Your task to perform on an android device: Open settings on Google Maps Image 0: 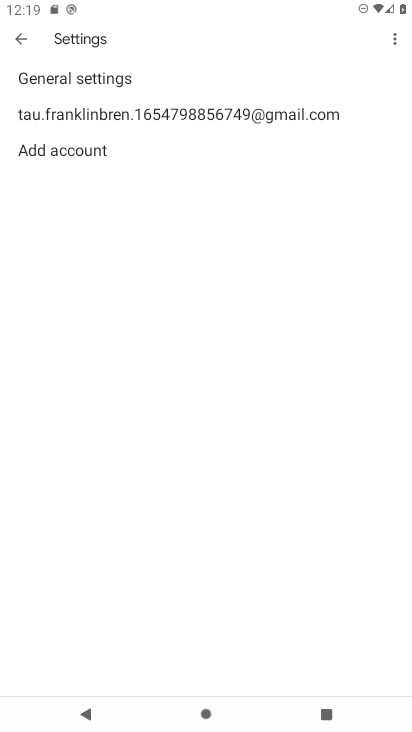
Step 0: press home button
Your task to perform on an android device: Open settings on Google Maps Image 1: 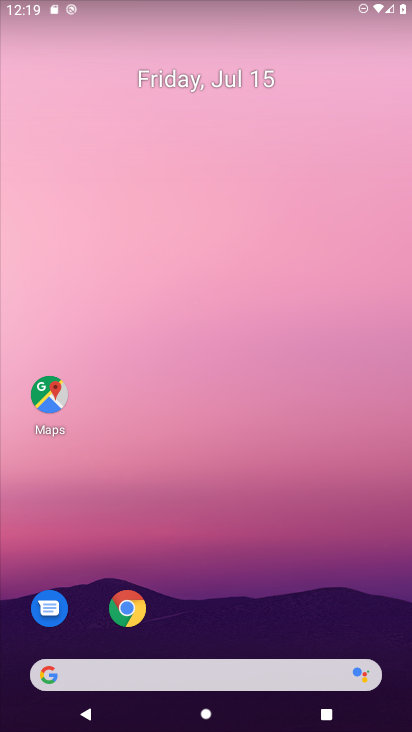
Step 1: drag from (224, 671) to (265, 29)
Your task to perform on an android device: Open settings on Google Maps Image 2: 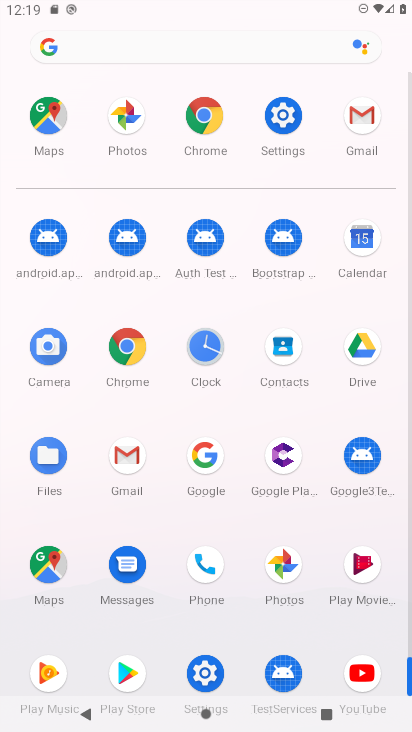
Step 2: click (272, 107)
Your task to perform on an android device: Open settings on Google Maps Image 3: 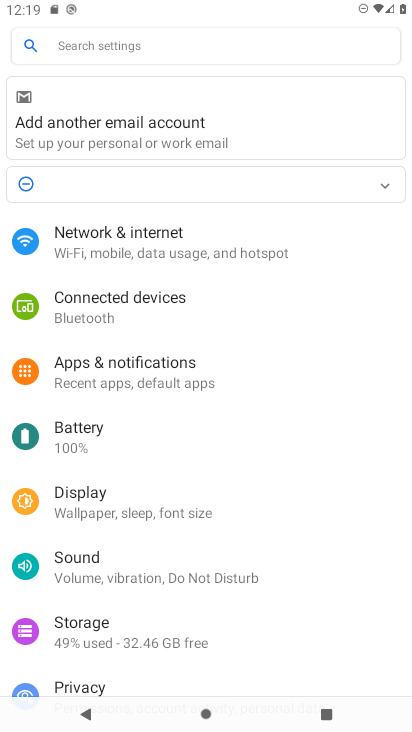
Step 3: press home button
Your task to perform on an android device: Open settings on Google Maps Image 4: 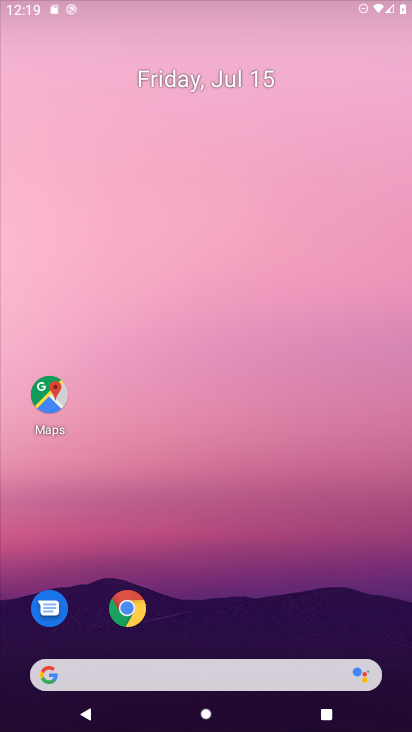
Step 4: drag from (269, 679) to (306, 11)
Your task to perform on an android device: Open settings on Google Maps Image 5: 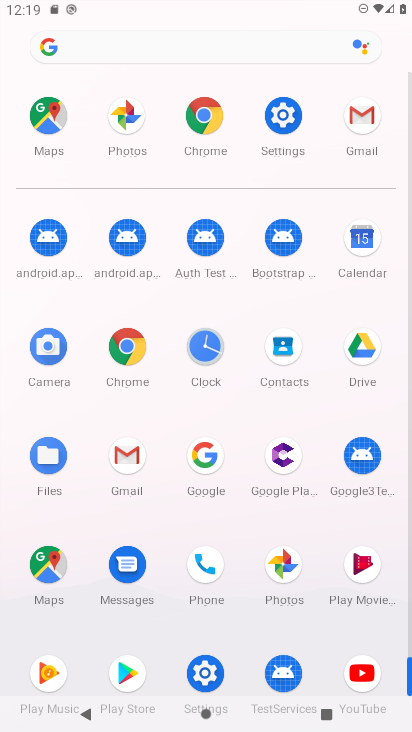
Step 5: click (34, 572)
Your task to perform on an android device: Open settings on Google Maps Image 6: 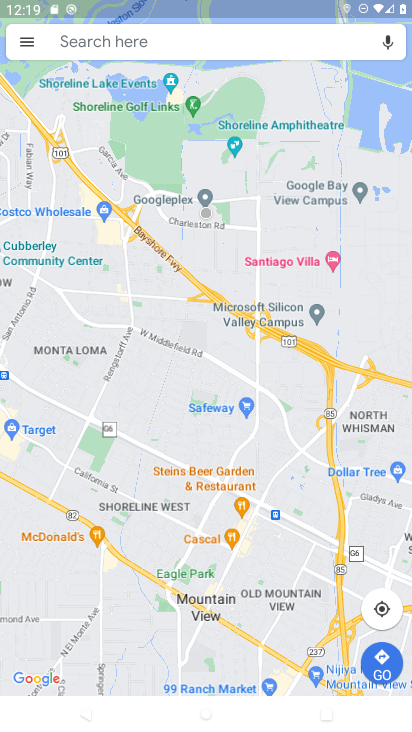
Step 6: click (27, 41)
Your task to perform on an android device: Open settings on Google Maps Image 7: 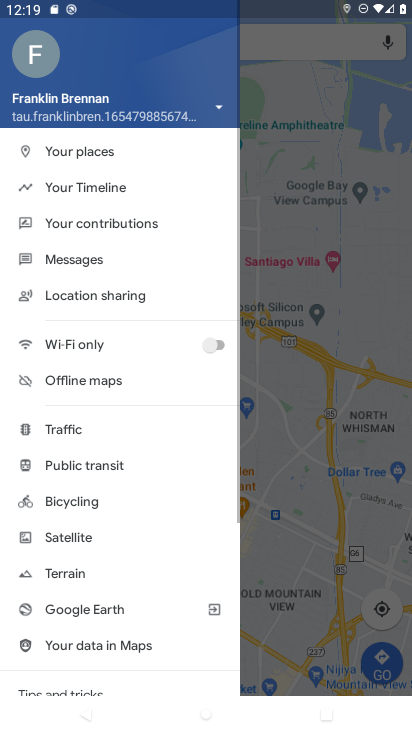
Step 7: drag from (100, 648) to (124, 134)
Your task to perform on an android device: Open settings on Google Maps Image 8: 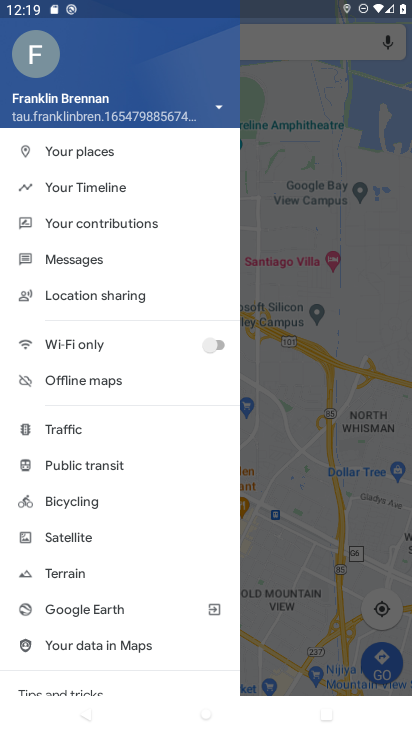
Step 8: drag from (144, 610) to (179, 140)
Your task to perform on an android device: Open settings on Google Maps Image 9: 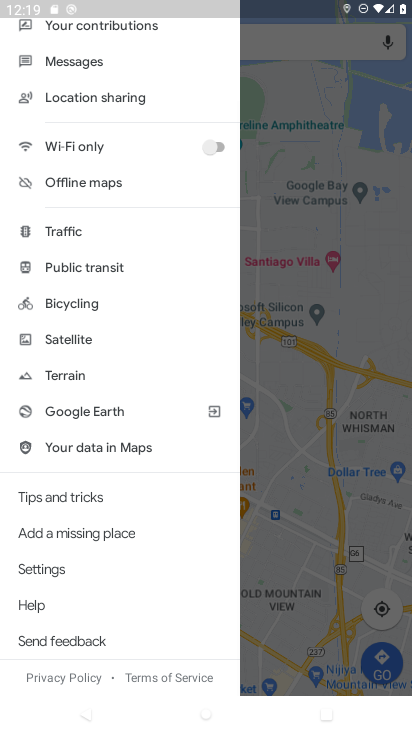
Step 9: drag from (120, 252) to (69, 724)
Your task to perform on an android device: Open settings on Google Maps Image 10: 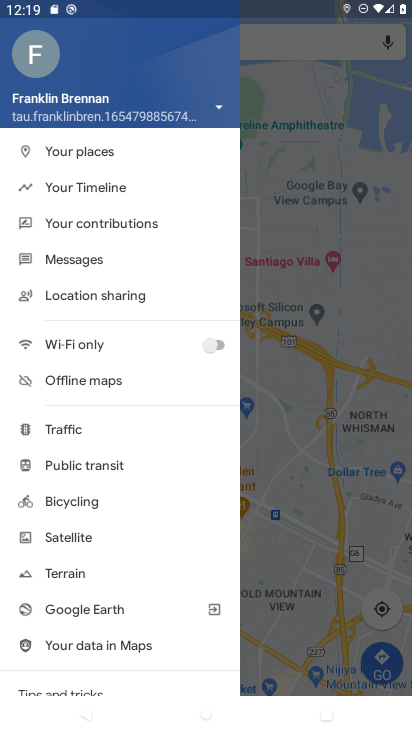
Step 10: click (118, 189)
Your task to perform on an android device: Open settings on Google Maps Image 11: 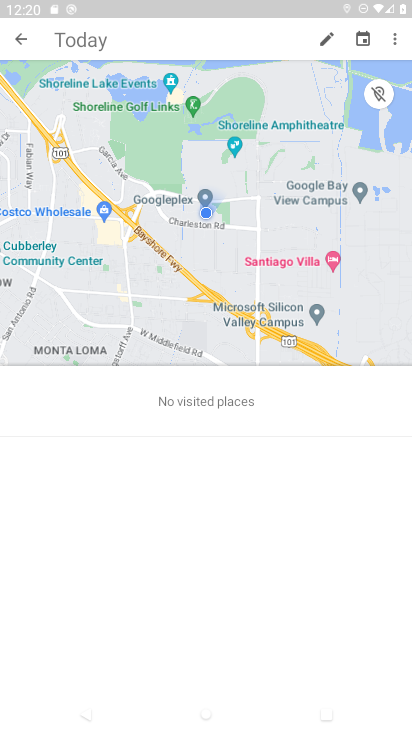
Step 11: click (400, 35)
Your task to perform on an android device: Open settings on Google Maps Image 12: 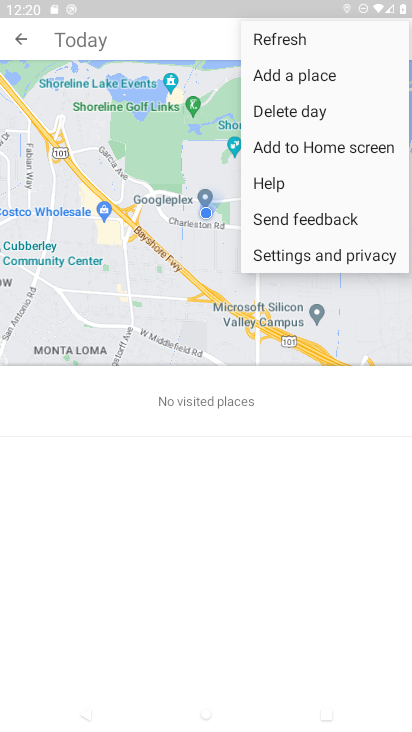
Step 12: click (328, 247)
Your task to perform on an android device: Open settings on Google Maps Image 13: 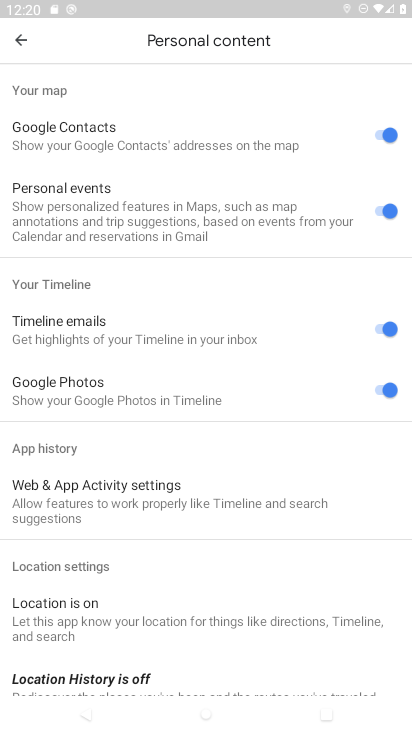
Step 13: task complete